Your task to perform on an android device: Open ESPN.com Image 0: 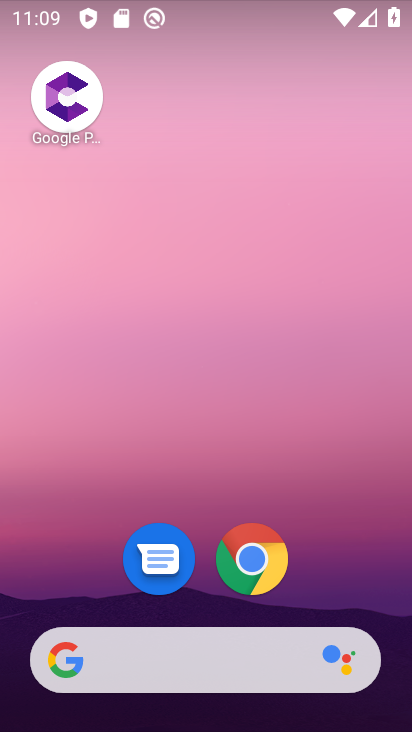
Step 0: click (243, 564)
Your task to perform on an android device: Open ESPN.com Image 1: 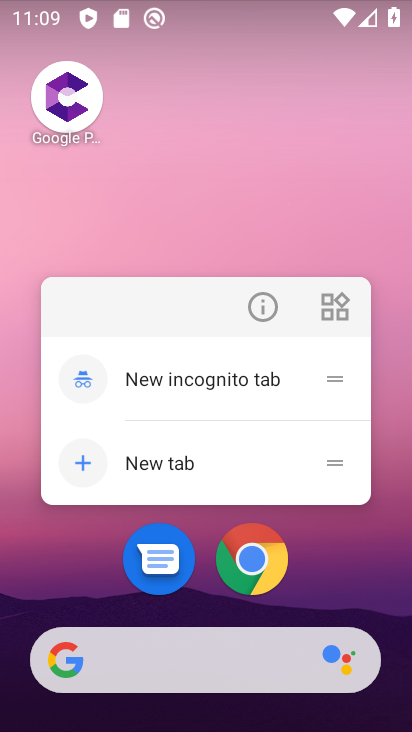
Step 1: click (245, 562)
Your task to perform on an android device: Open ESPN.com Image 2: 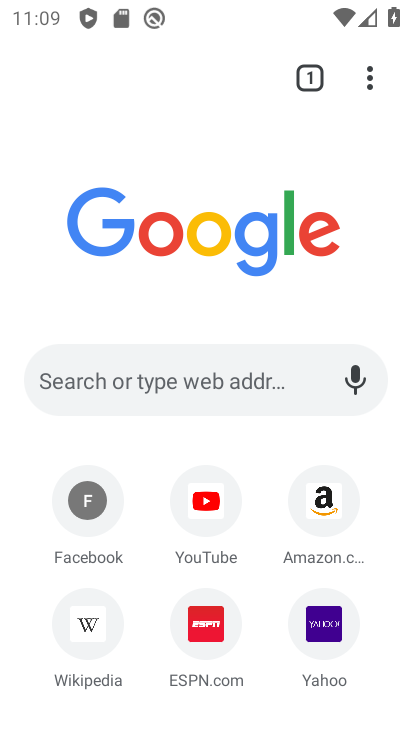
Step 2: click (107, 376)
Your task to perform on an android device: Open ESPN.com Image 3: 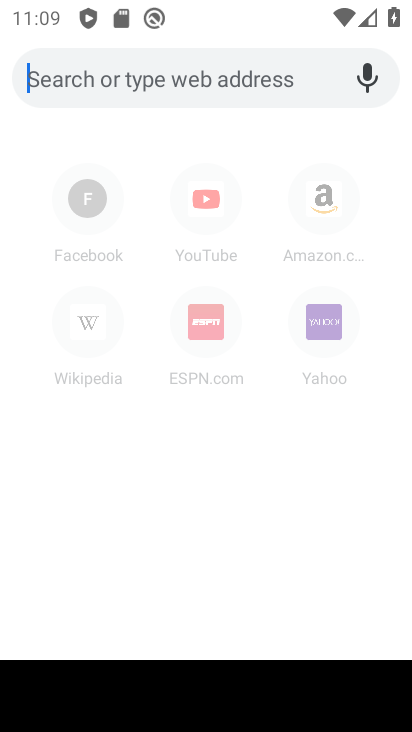
Step 3: click (223, 321)
Your task to perform on an android device: Open ESPN.com Image 4: 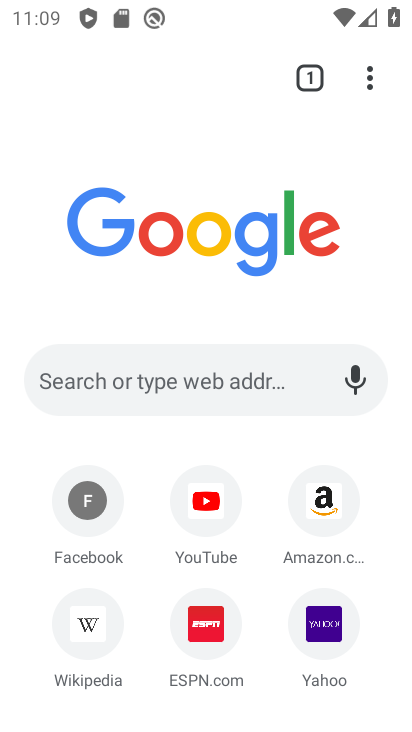
Step 4: click (197, 656)
Your task to perform on an android device: Open ESPN.com Image 5: 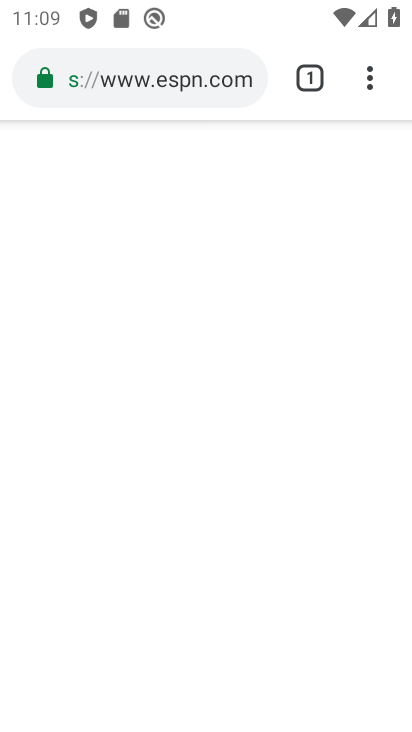
Step 5: task complete